Your task to perform on an android device: remove spam from my inbox in the gmail app Image 0: 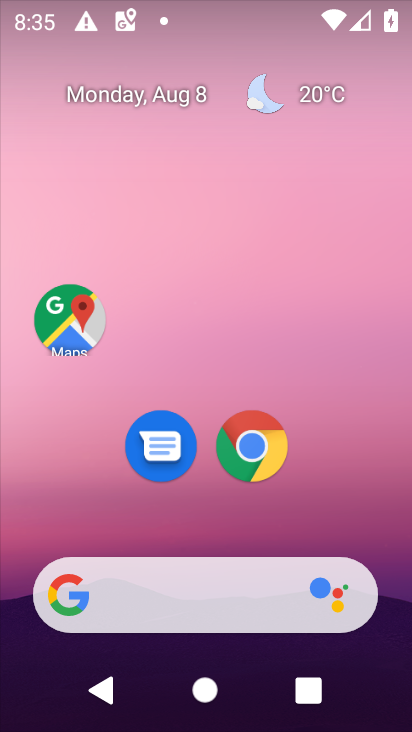
Step 0: drag from (334, 525) to (314, 20)
Your task to perform on an android device: remove spam from my inbox in the gmail app Image 1: 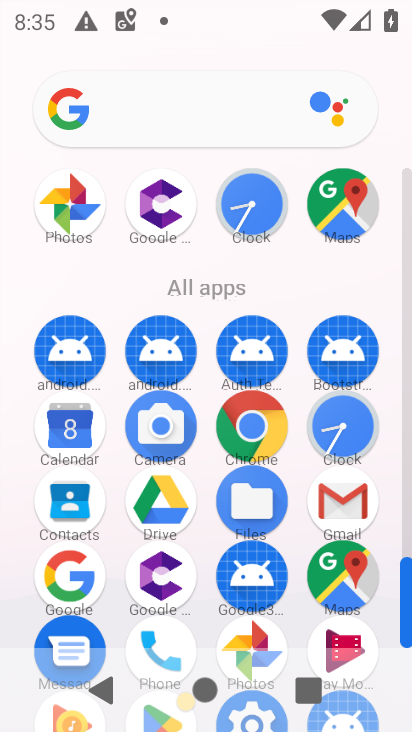
Step 1: click (343, 502)
Your task to perform on an android device: remove spam from my inbox in the gmail app Image 2: 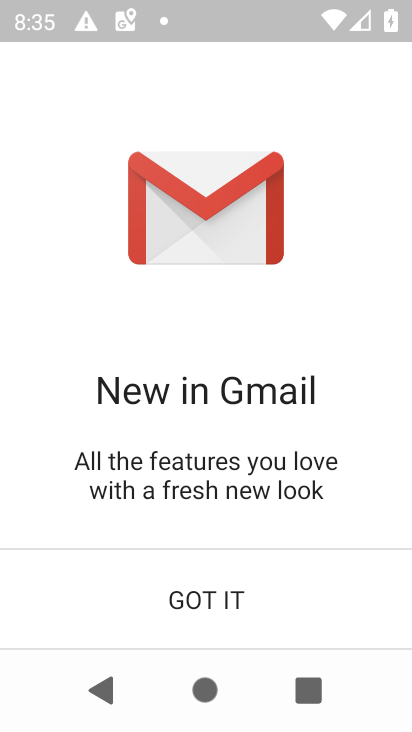
Step 2: click (198, 614)
Your task to perform on an android device: remove spam from my inbox in the gmail app Image 3: 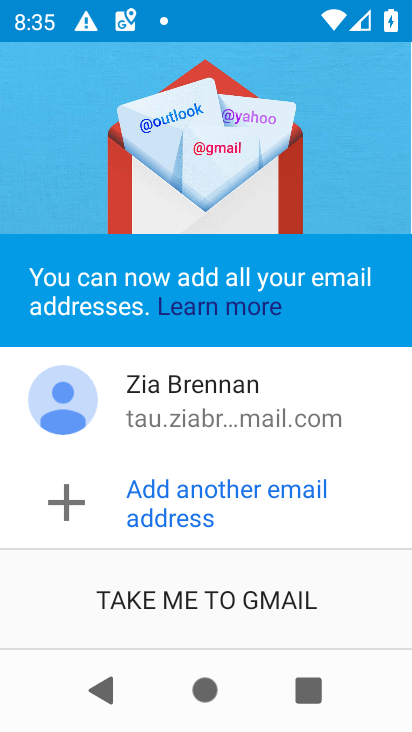
Step 3: click (198, 614)
Your task to perform on an android device: remove spam from my inbox in the gmail app Image 4: 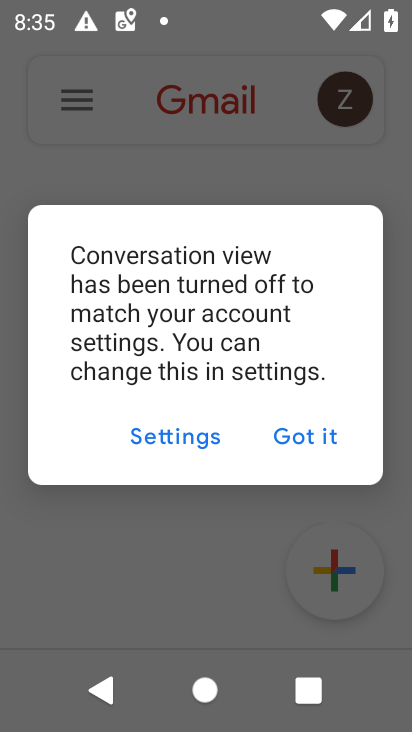
Step 4: click (288, 435)
Your task to perform on an android device: remove spam from my inbox in the gmail app Image 5: 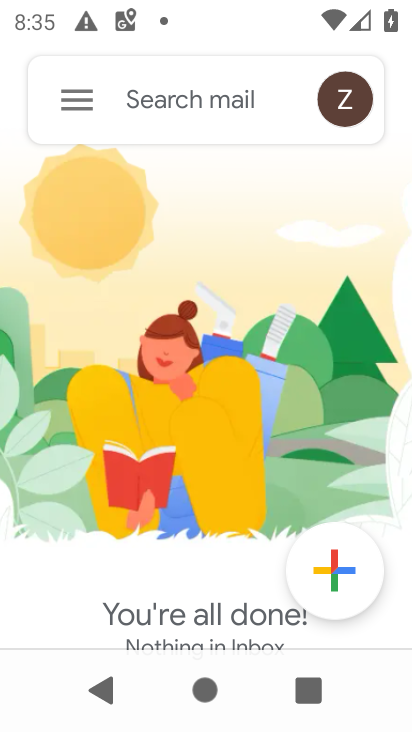
Step 5: click (76, 101)
Your task to perform on an android device: remove spam from my inbox in the gmail app Image 6: 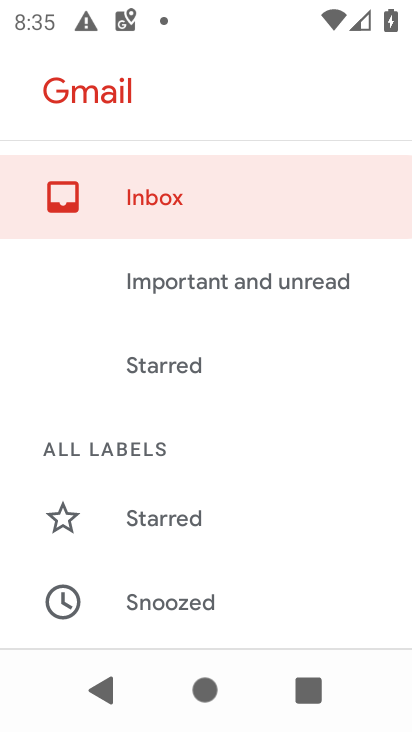
Step 6: drag from (259, 601) to (275, 163)
Your task to perform on an android device: remove spam from my inbox in the gmail app Image 7: 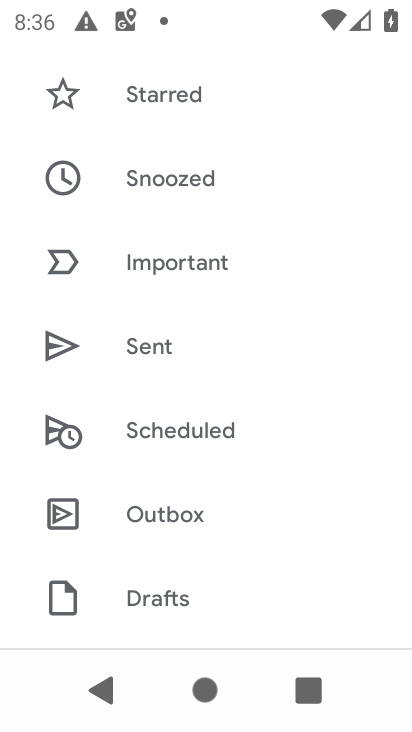
Step 7: drag from (240, 595) to (240, 219)
Your task to perform on an android device: remove spam from my inbox in the gmail app Image 8: 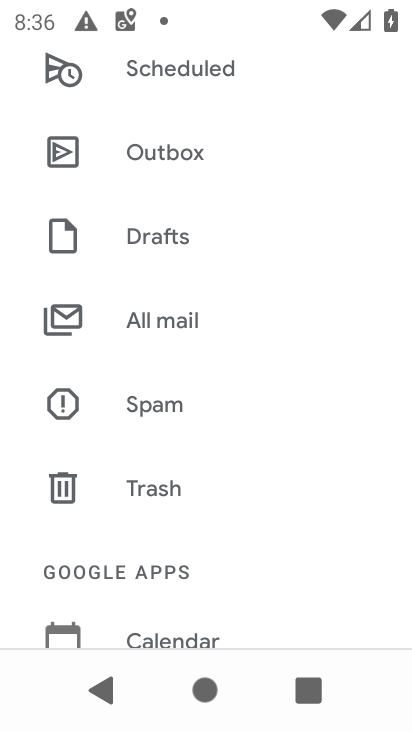
Step 8: click (149, 407)
Your task to perform on an android device: remove spam from my inbox in the gmail app Image 9: 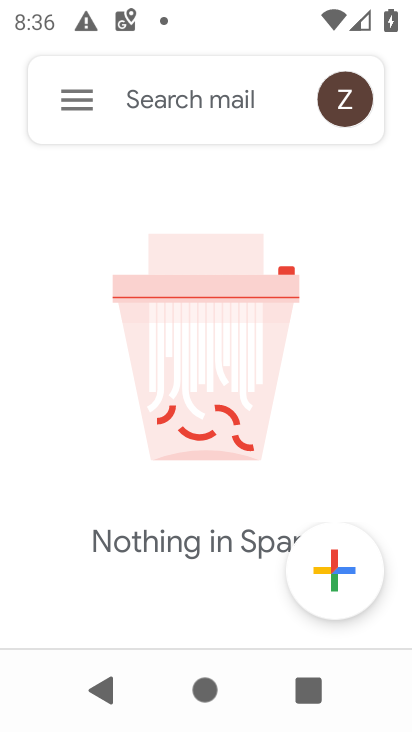
Step 9: task complete